Your task to perform on an android device: Open the Play Movies app and select the watchlist tab. Image 0: 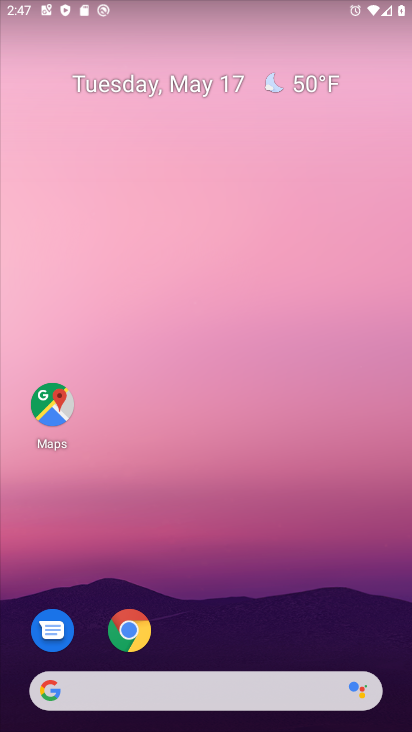
Step 0: drag from (187, 645) to (232, 323)
Your task to perform on an android device: Open the Play Movies app and select the watchlist tab. Image 1: 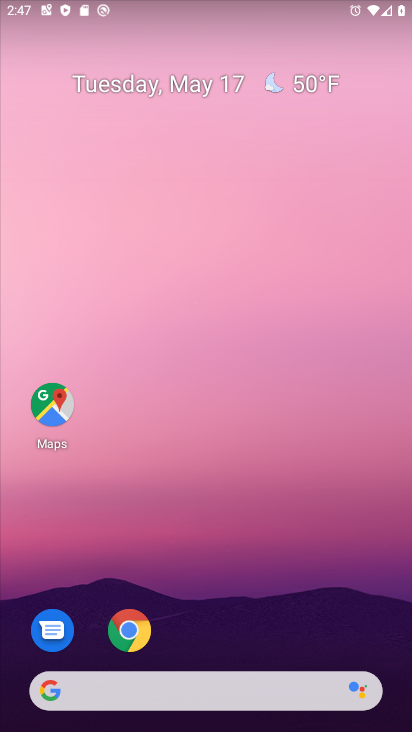
Step 1: drag from (247, 555) to (256, 324)
Your task to perform on an android device: Open the Play Movies app and select the watchlist tab. Image 2: 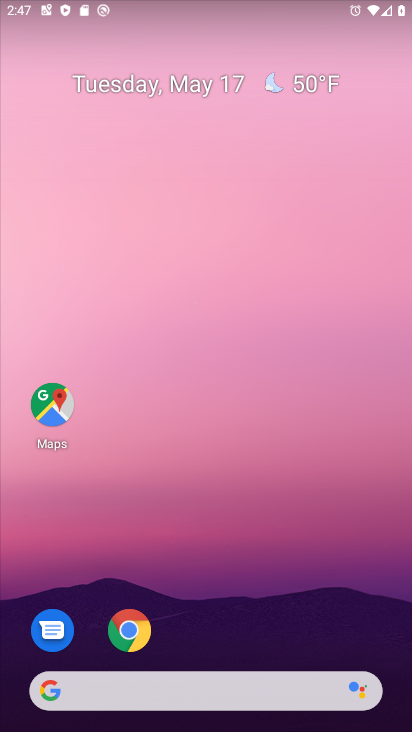
Step 2: drag from (154, 678) to (212, 184)
Your task to perform on an android device: Open the Play Movies app and select the watchlist tab. Image 3: 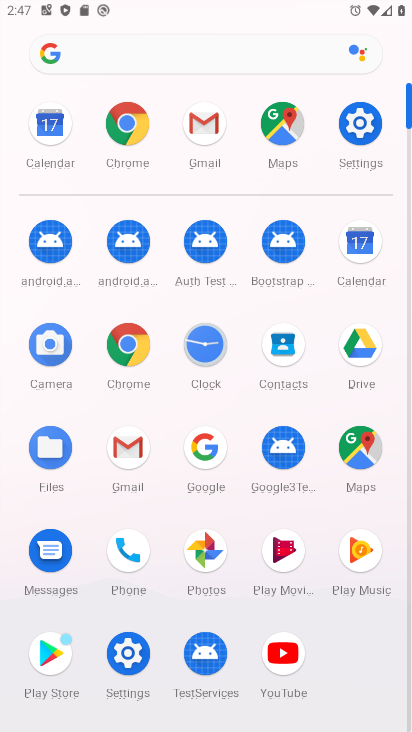
Step 3: click (302, 557)
Your task to perform on an android device: Open the Play Movies app and select the watchlist tab. Image 4: 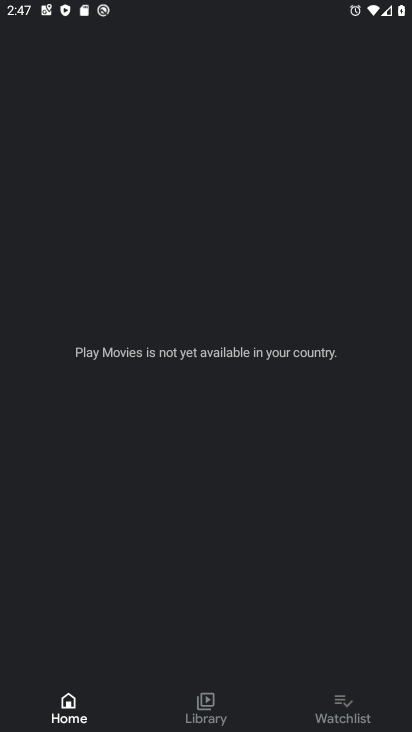
Step 4: click (337, 716)
Your task to perform on an android device: Open the Play Movies app and select the watchlist tab. Image 5: 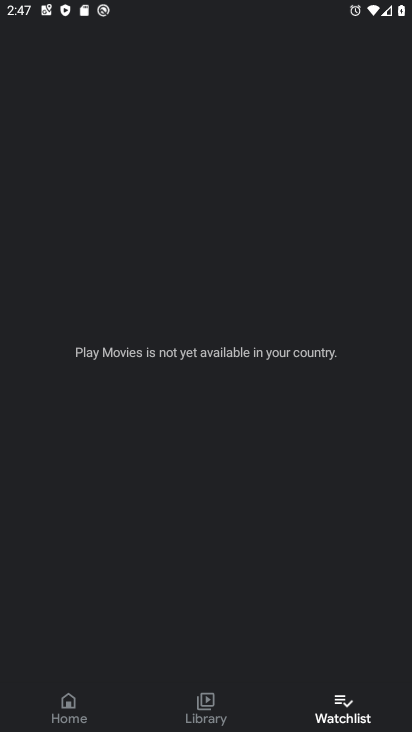
Step 5: task complete